Your task to perform on an android device: move a message to another label in the gmail app Image 0: 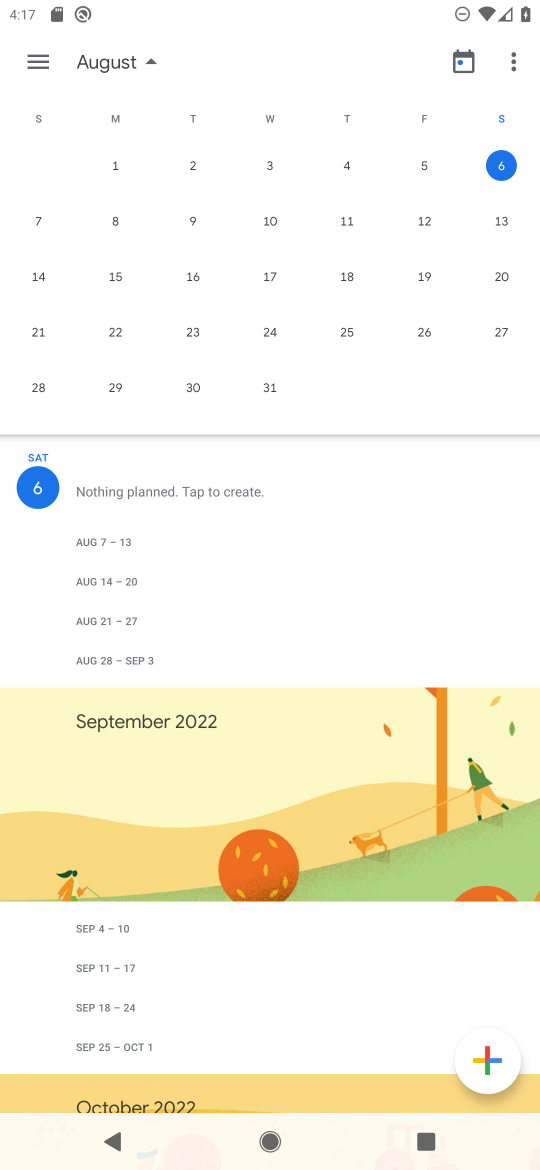
Step 0: press home button
Your task to perform on an android device: move a message to another label in the gmail app Image 1: 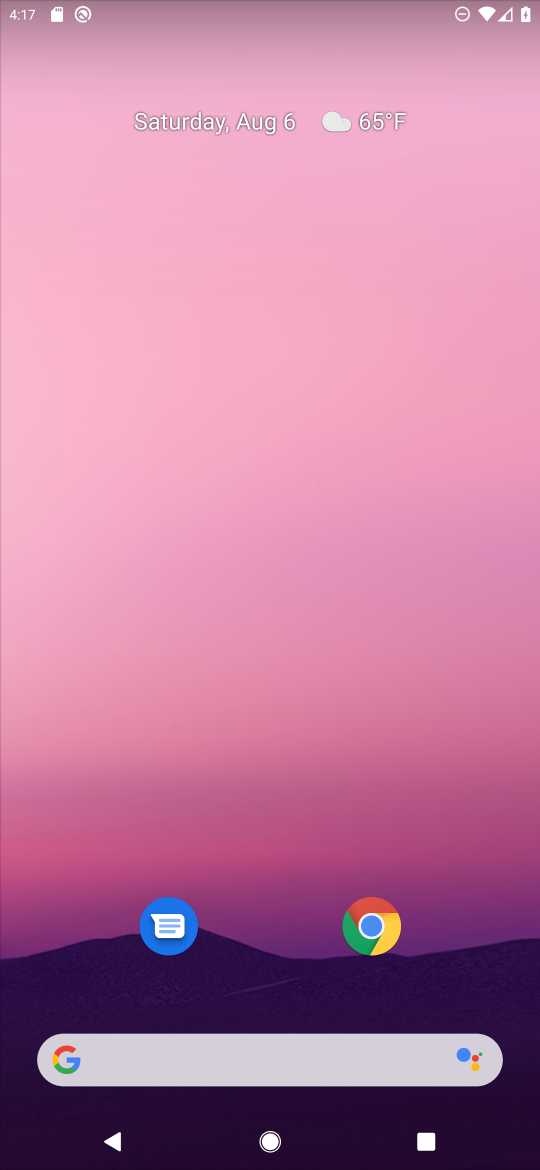
Step 1: drag from (275, 921) to (230, 381)
Your task to perform on an android device: move a message to another label in the gmail app Image 2: 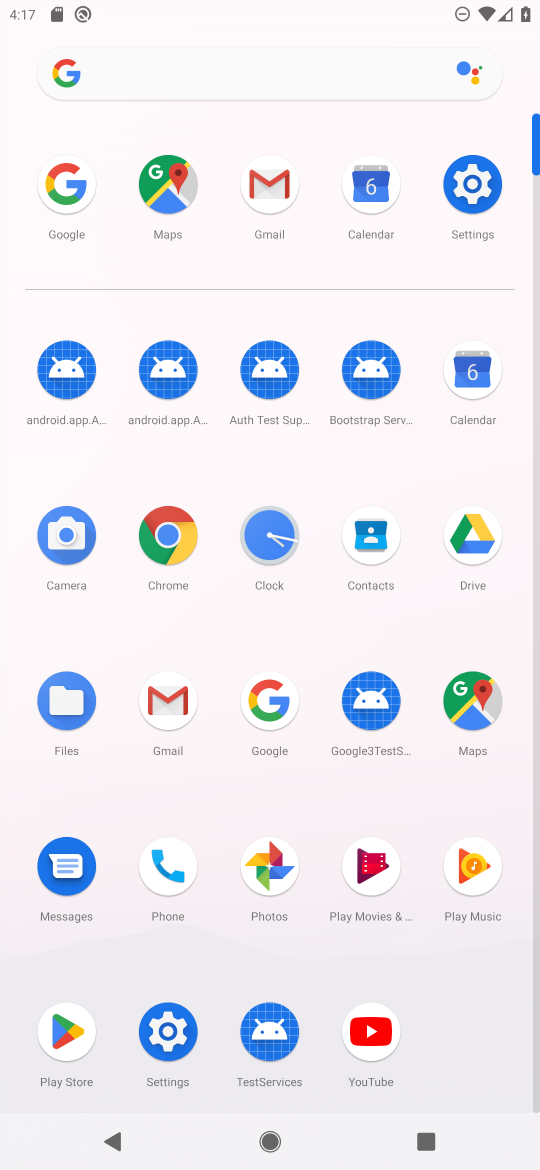
Step 2: click (248, 185)
Your task to perform on an android device: move a message to another label in the gmail app Image 3: 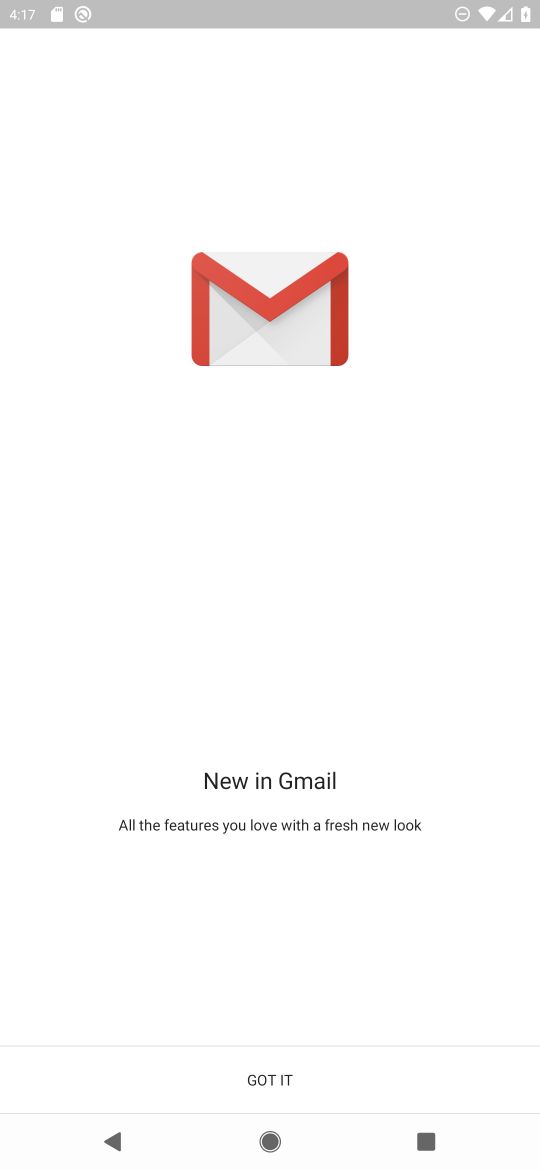
Step 3: click (352, 1073)
Your task to perform on an android device: move a message to another label in the gmail app Image 4: 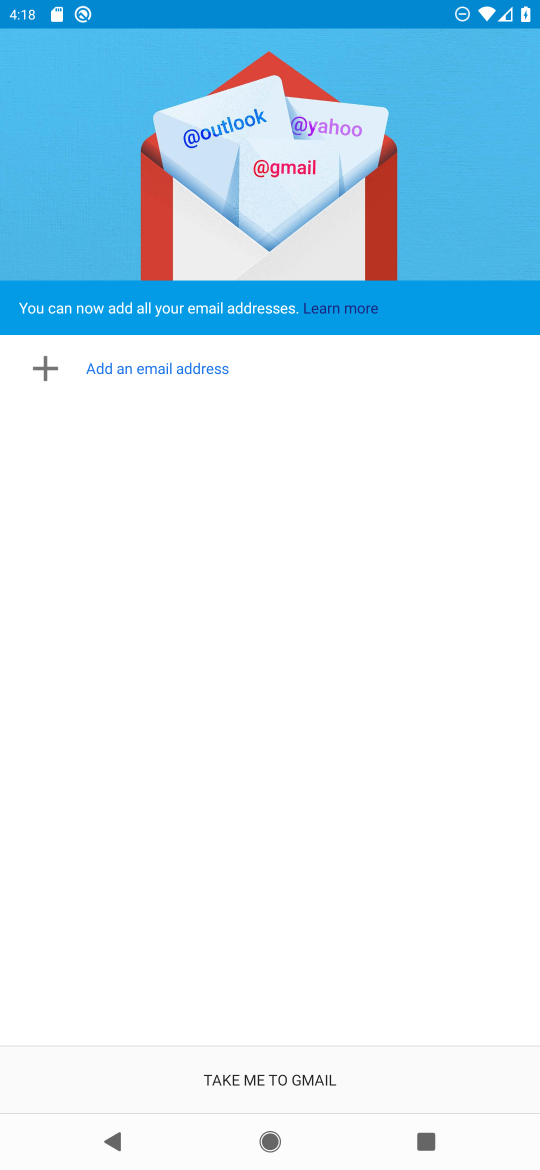
Step 4: click (311, 1056)
Your task to perform on an android device: move a message to another label in the gmail app Image 5: 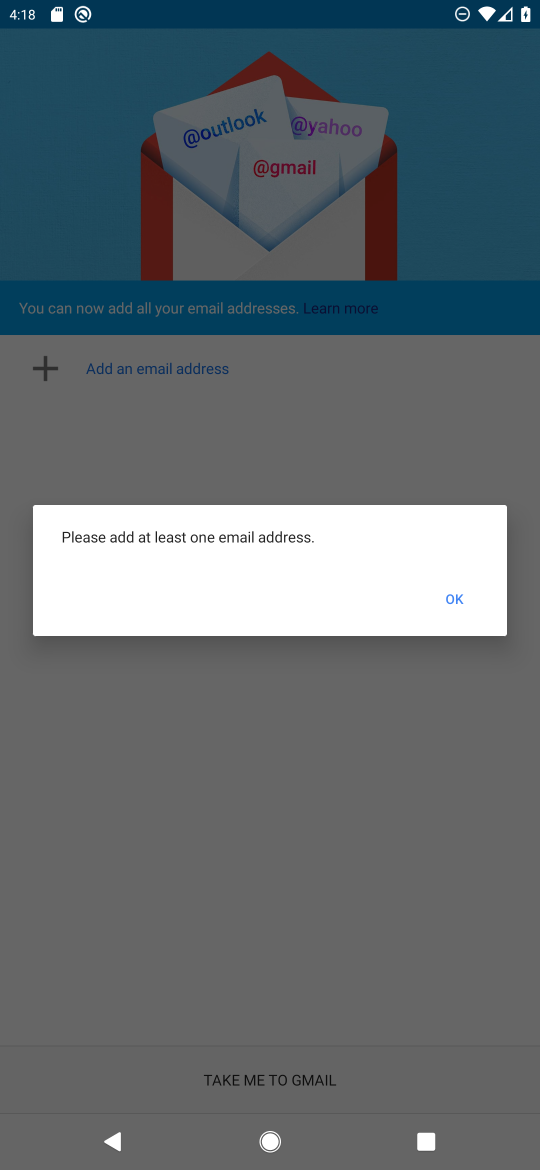
Step 5: task complete